Your task to perform on an android device: Check the weather Image 0: 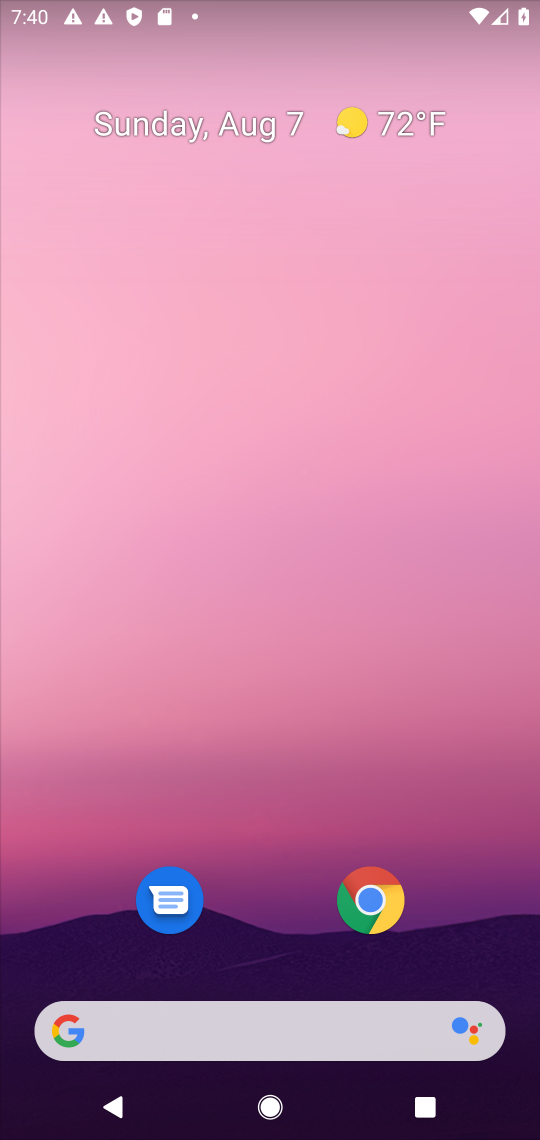
Step 0: click (208, 1024)
Your task to perform on an android device: Check the weather Image 1: 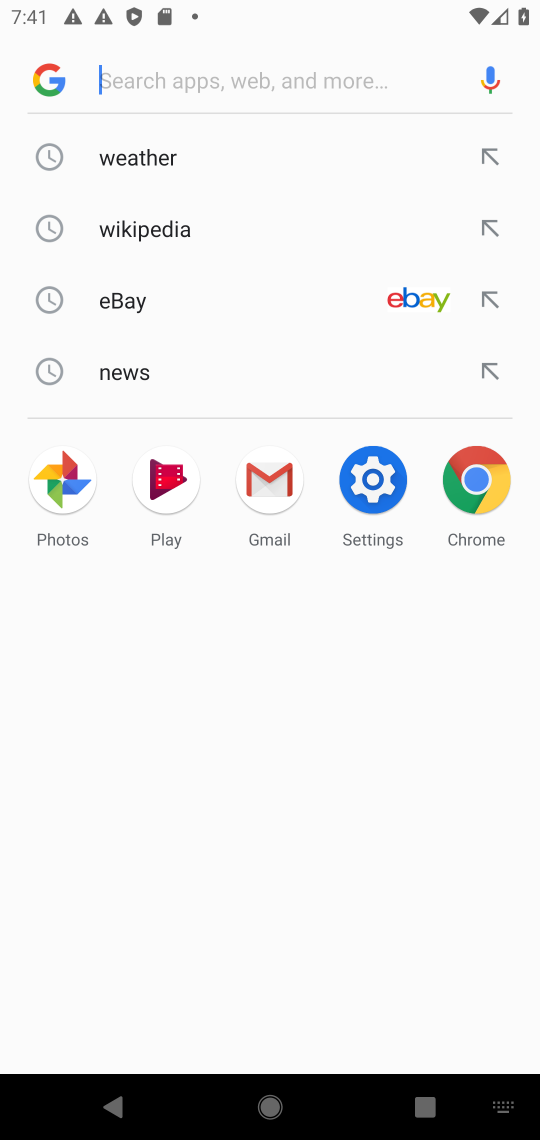
Step 1: click (134, 153)
Your task to perform on an android device: Check the weather Image 2: 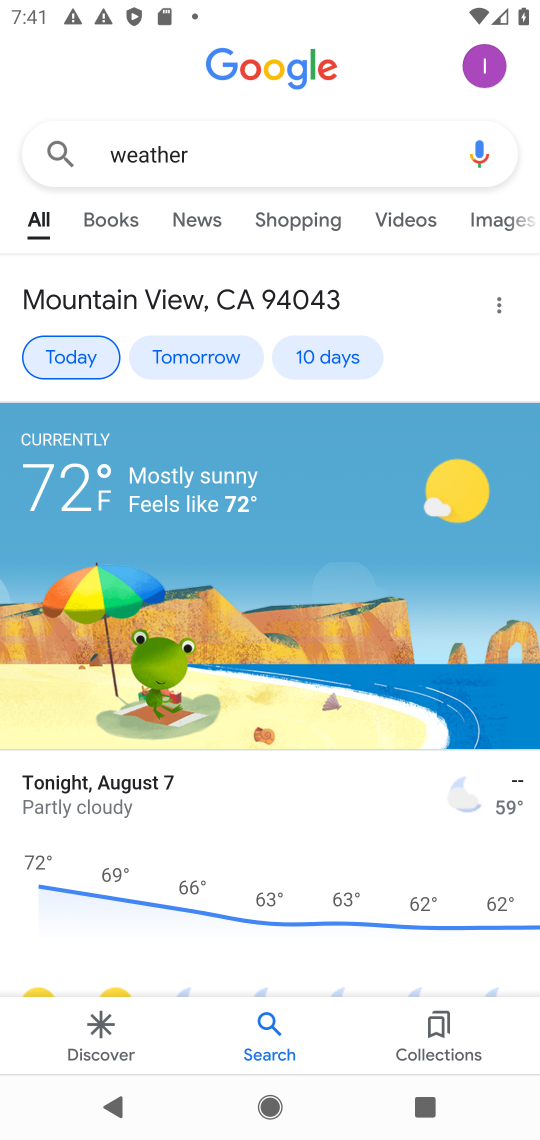
Step 2: task complete